Your task to perform on an android device: open wifi settings Image 0: 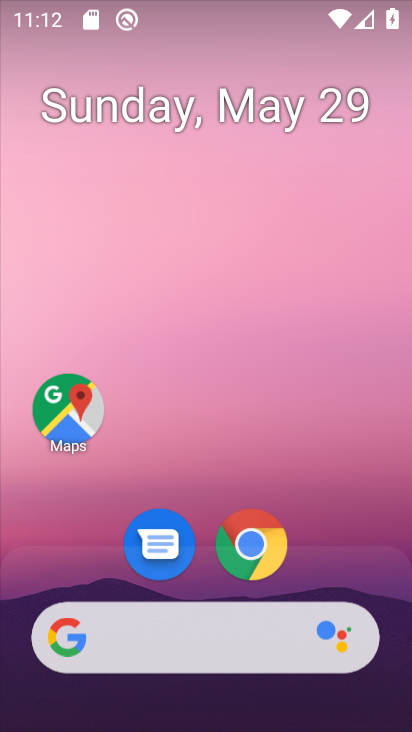
Step 0: press home button
Your task to perform on an android device: open wifi settings Image 1: 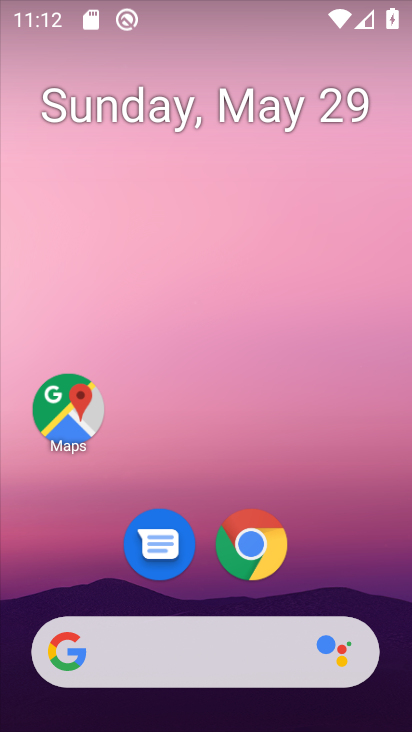
Step 1: drag from (212, 591) to (265, 71)
Your task to perform on an android device: open wifi settings Image 2: 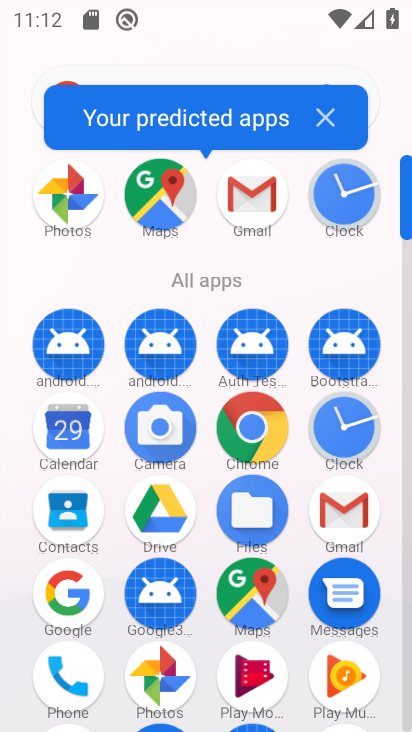
Step 2: drag from (199, 553) to (225, 94)
Your task to perform on an android device: open wifi settings Image 3: 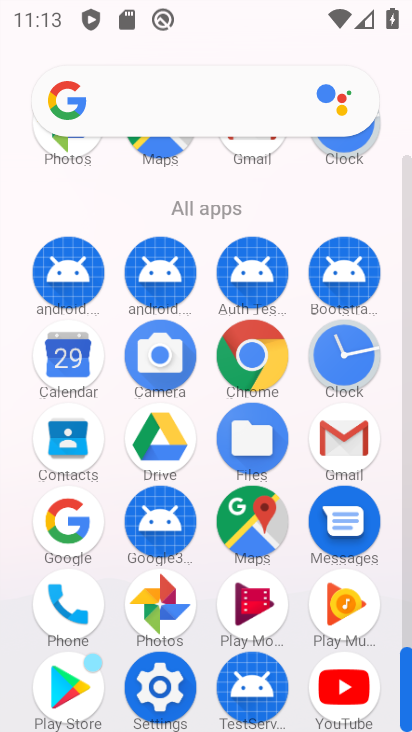
Step 3: click (159, 683)
Your task to perform on an android device: open wifi settings Image 4: 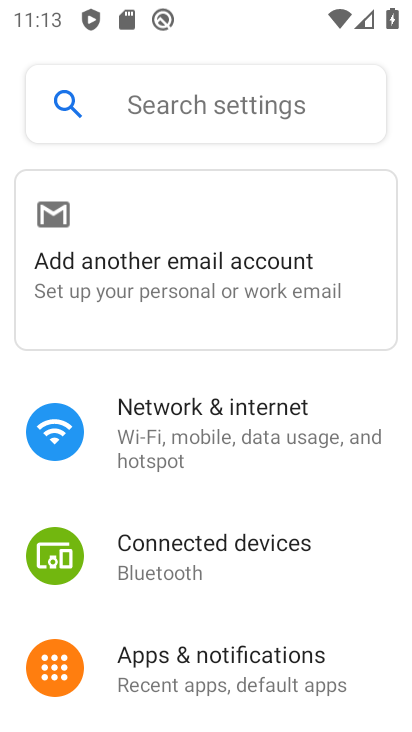
Step 4: click (210, 435)
Your task to perform on an android device: open wifi settings Image 5: 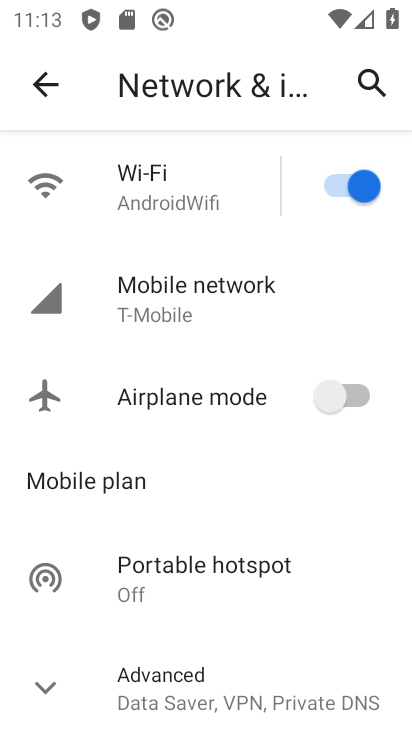
Step 5: click (191, 184)
Your task to perform on an android device: open wifi settings Image 6: 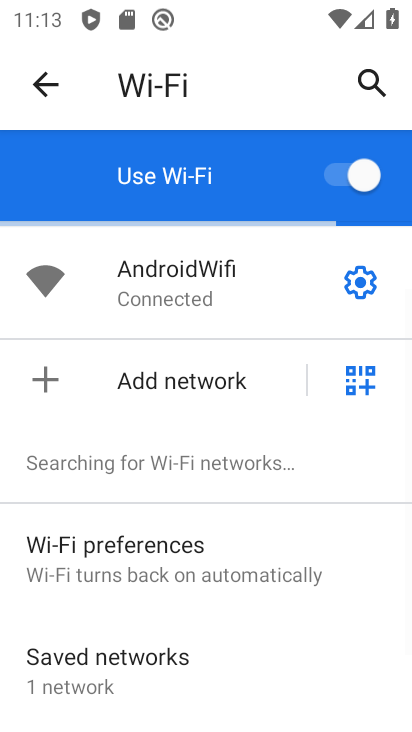
Step 6: task complete